Your task to perform on an android device: change the clock display to digital Image 0: 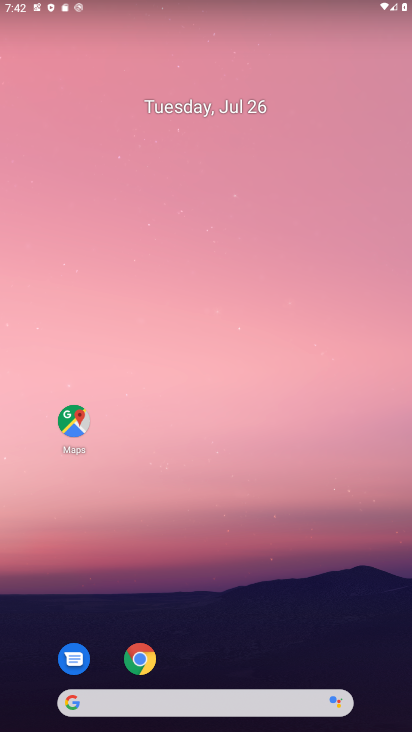
Step 0: drag from (214, 672) to (147, 85)
Your task to perform on an android device: change the clock display to digital Image 1: 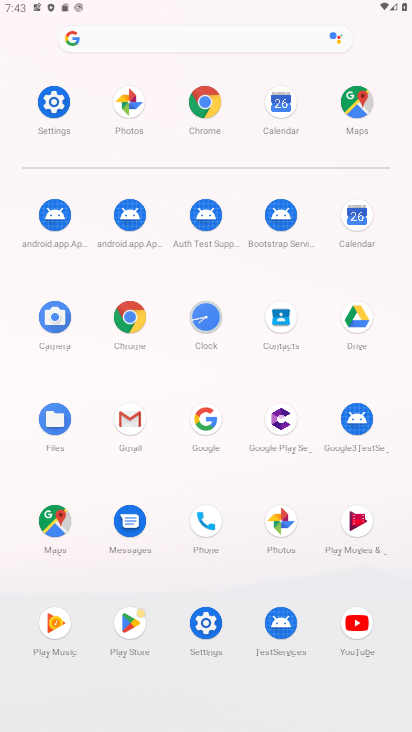
Step 1: click (204, 331)
Your task to perform on an android device: change the clock display to digital Image 2: 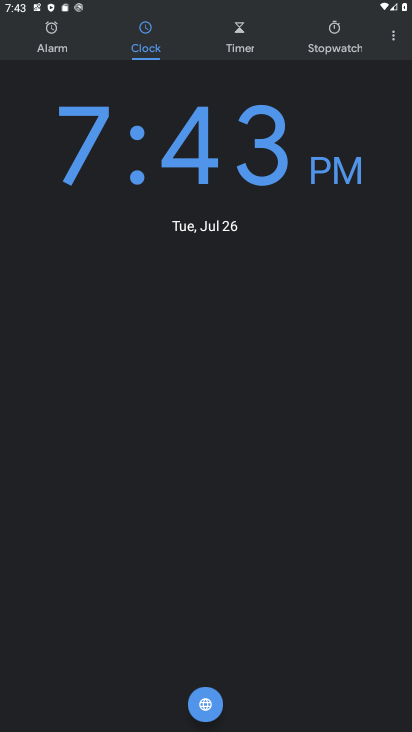
Step 2: click (392, 31)
Your task to perform on an android device: change the clock display to digital Image 3: 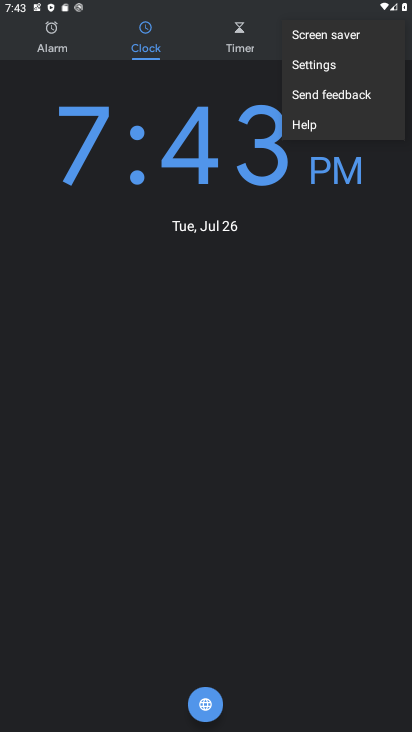
Step 3: click (310, 64)
Your task to perform on an android device: change the clock display to digital Image 4: 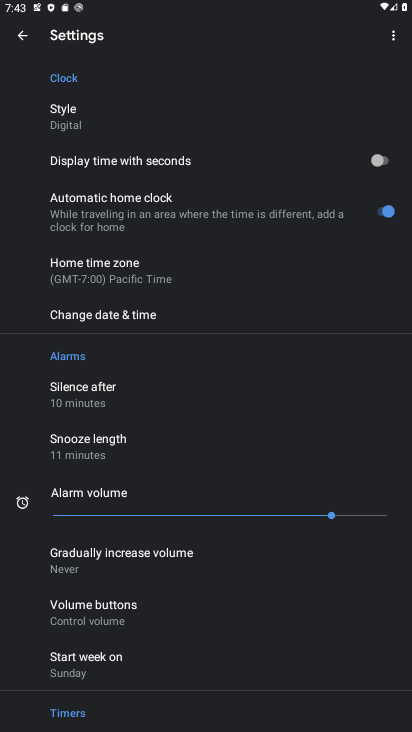
Step 4: task complete